Your task to perform on an android device: turn on sleep mode Image 0: 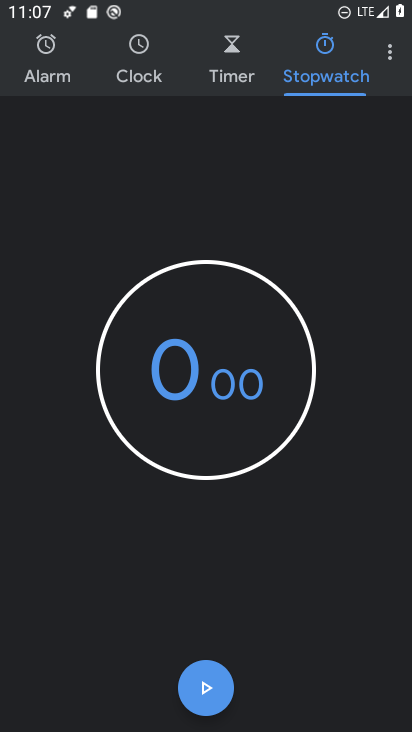
Step 0: press home button
Your task to perform on an android device: turn on sleep mode Image 1: 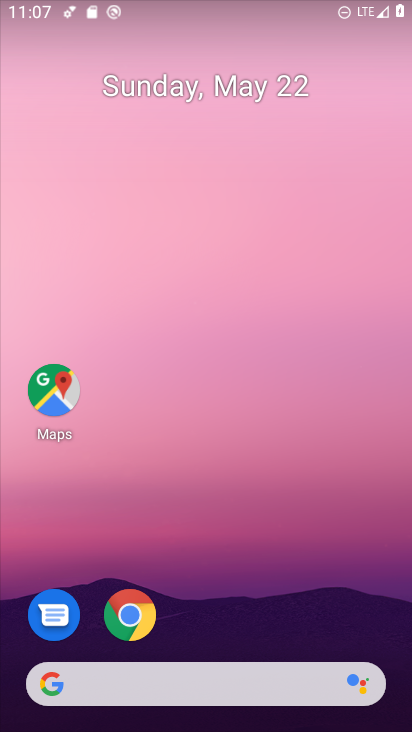
Step 1: drag from (308, 456) to (310, 166)
Your task to perform on an android device: turn on sleep mode Image 2: 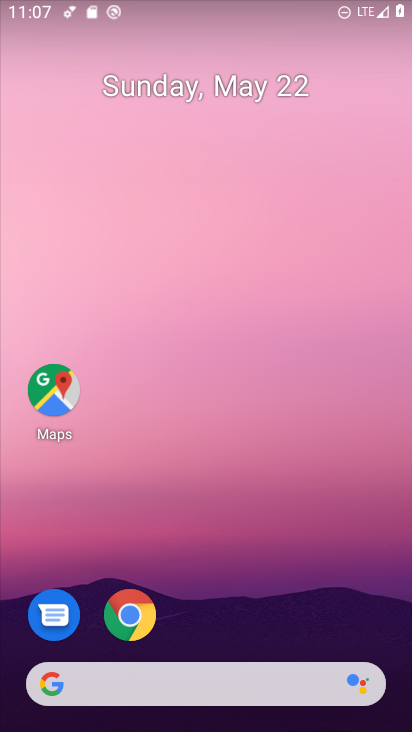
Step 2: drag from (301, 567) to (334, 181)
Your task to perform on an android device: turn on sleep mode Image 3: 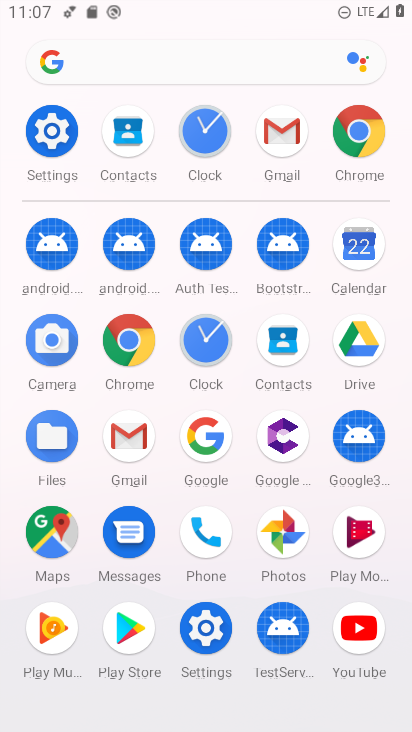
Step 3: click (35, 108)
Your task to perform on an android device: turn on sleep mode Image 4: 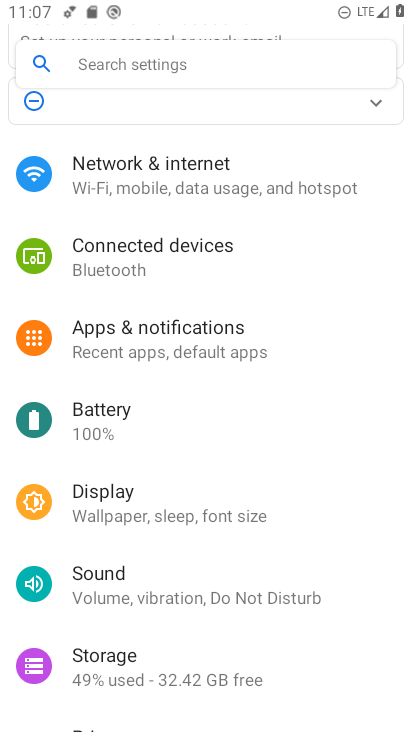
Step 4: drag from (321, 242) to (278, 517)
Your task to perform on an android device: turn on sleep mode Image 5: 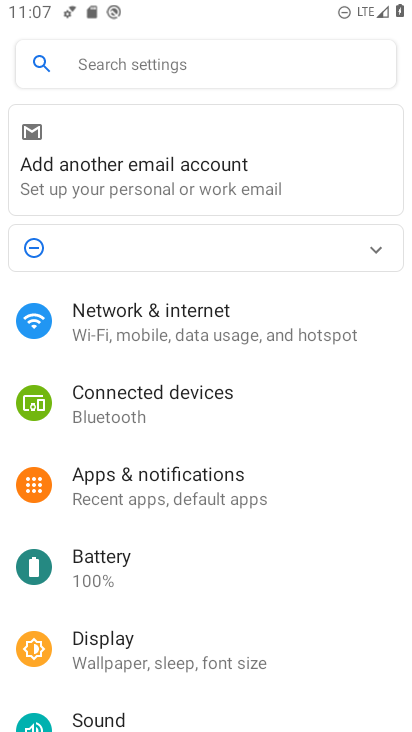
Step 5: drag from (218, 528) to (264, 209)
Your task to perform on an android device: turn on sleep mode Image 6: 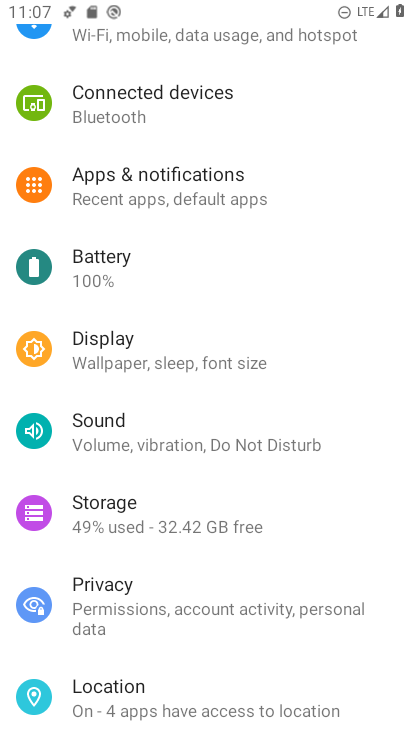
Step 6: click (128, 345)
Your task to perform on an android device: turn on sleep mode Image 7: 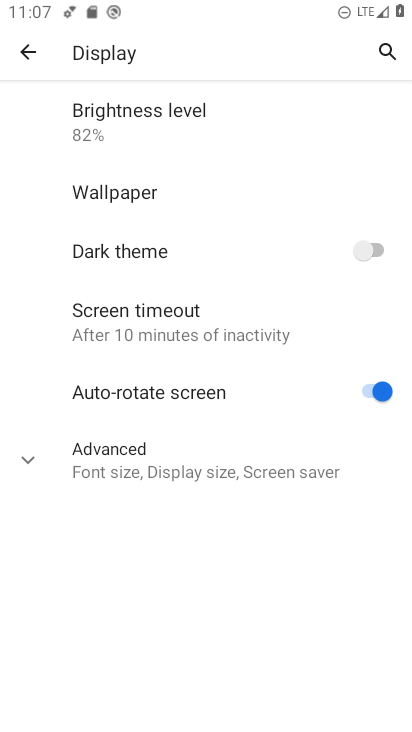
Step 7: click (233, 331)
Your task to perform on an android device: turn on sleep mode Image 8: 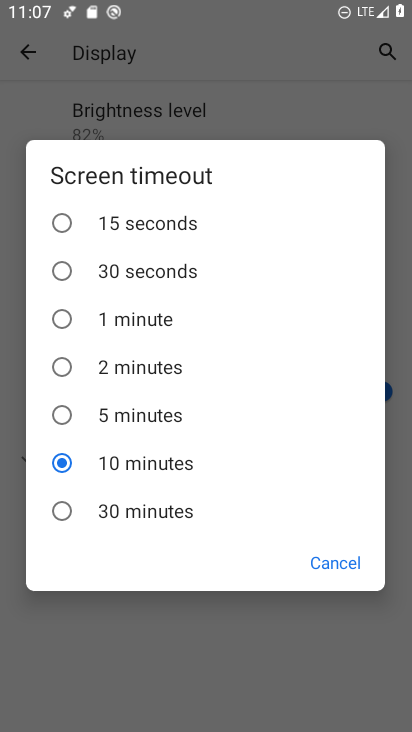
Step 8: task complete